Your task to perform on an android device: Open Wikipedia Image 0: 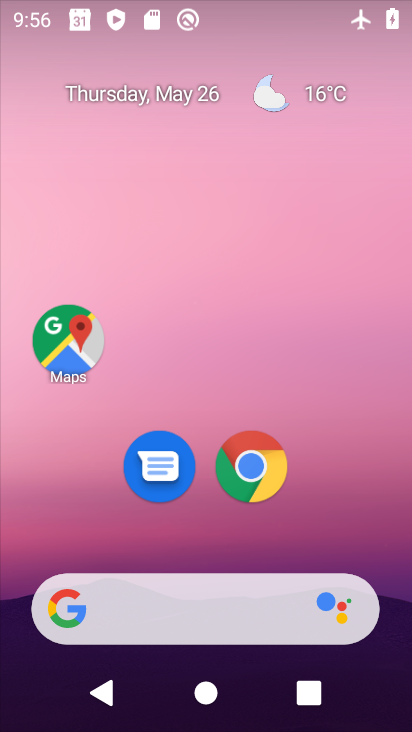
Step 0: drag from (159, 20) to (255, 105)
Your task to perform on an android device: Open Wikipedia Image 1: 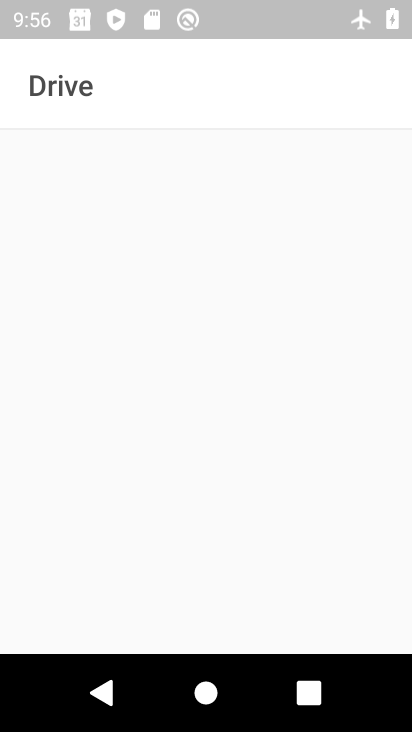
Step 1: press home button
Your task to perform on an android device: Open Wikipedia Image 2: 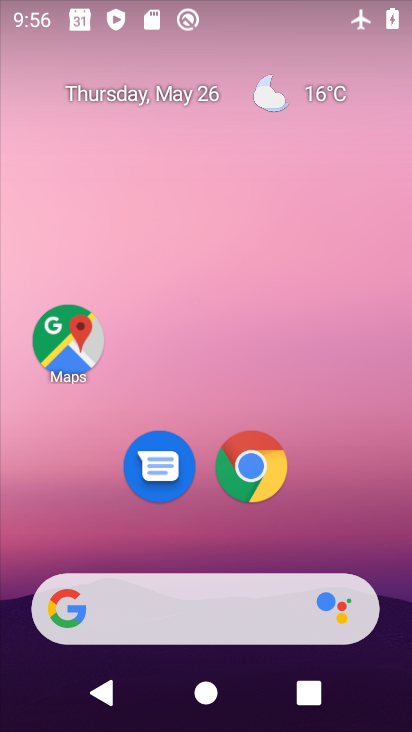
Step 2: click (251, 469)
Your task to perform on an android device: Open Wikipedia Image 3: 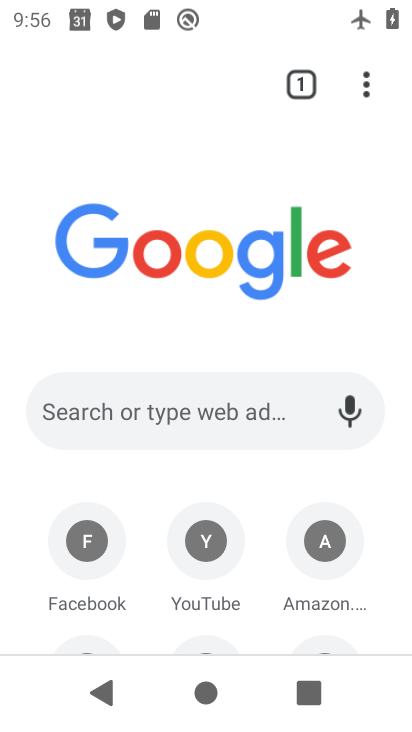
Step 3: drag from (150, 479) to (137, 127)
Your task to perform on an android device: Open Wikipedia Image 4: 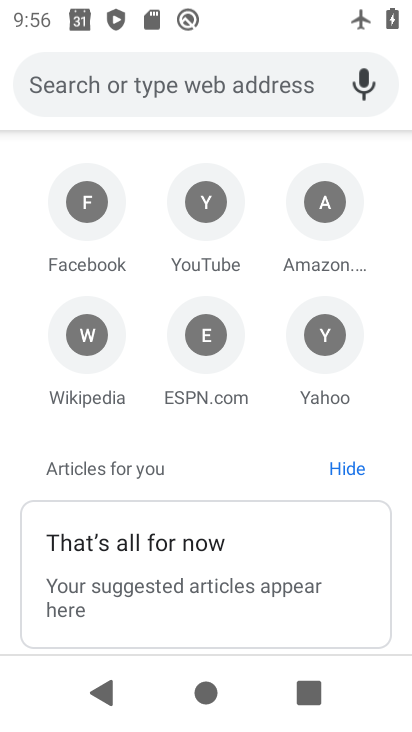
Step 4: click (92, 347)
Your task to perform on an android device: Open Wikipedia Image 5: 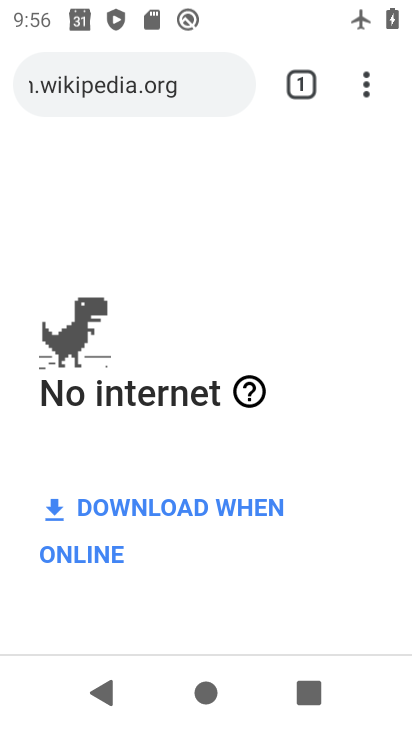
Step 5: task complete